Your task to perform on an android device: Go to ESPN.com Image 0: 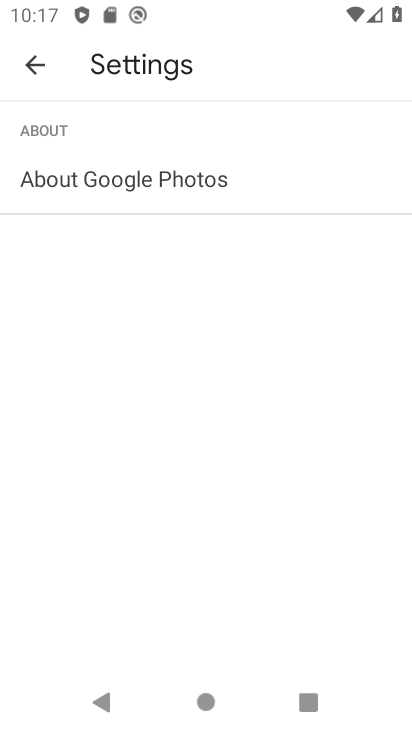
Step 0: press home button
Your task to perform on an android device: Go to ESPN.com Image 1: 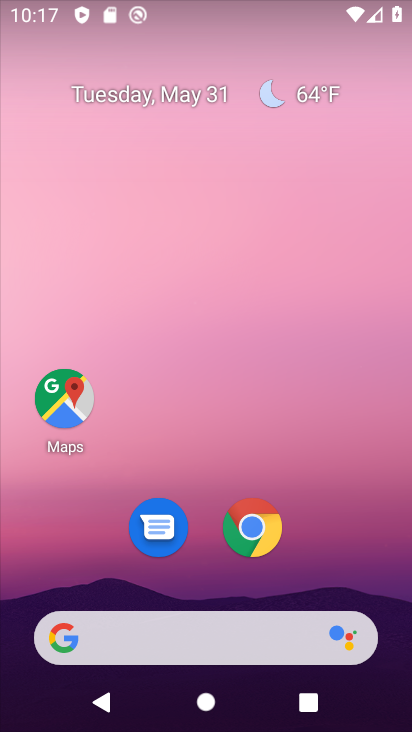
Step 1: click (207, 637)
Your task to perform on an android device: Go to ESPN.com Image 2: 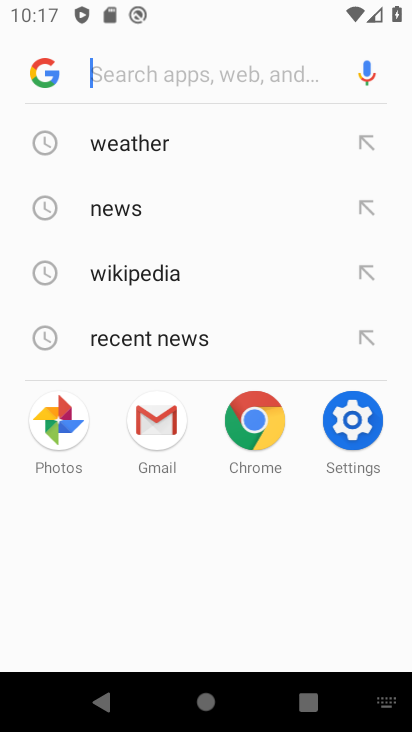
Step 2: type "espn.com"
Your task to perform on an android device: Go to ESPN.com Image 3: 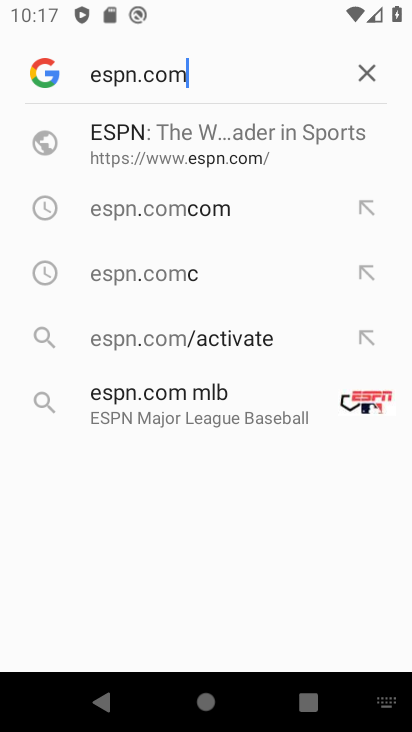
Step 3: click (275, 132)
Your task to perform on an android device: Go to ESPN.com Image 4: 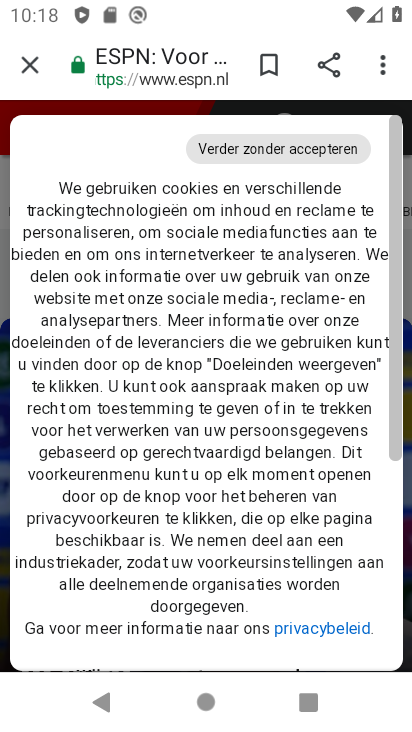
Step 4: task complete